Your task to perform on an android device: Go to accessibility settings Image 0: 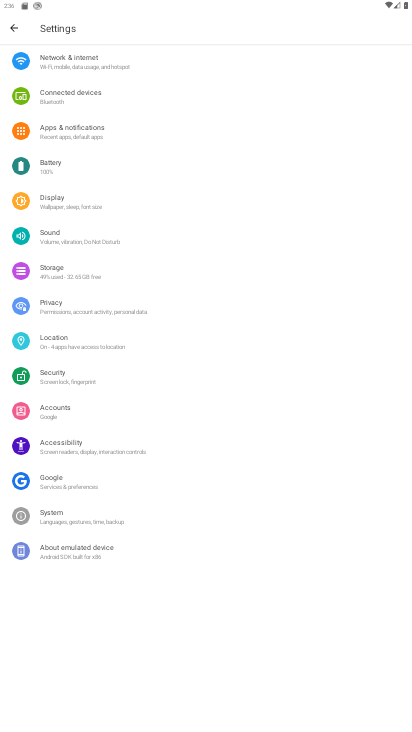
Step 0: click (112, 442)
Your task to perform on an android device: Go to accessibility settings Image 1: 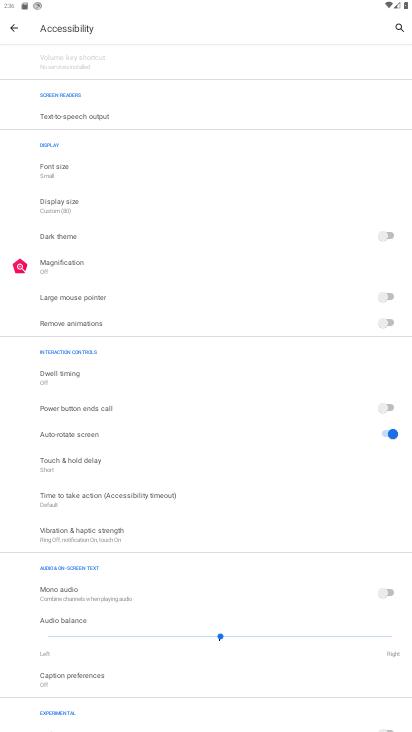
Step 1: task complete